Your task to perform on an android device: Empty the shopping cart on amazon. Add "dell xps" to the cart on amazon Image 0: 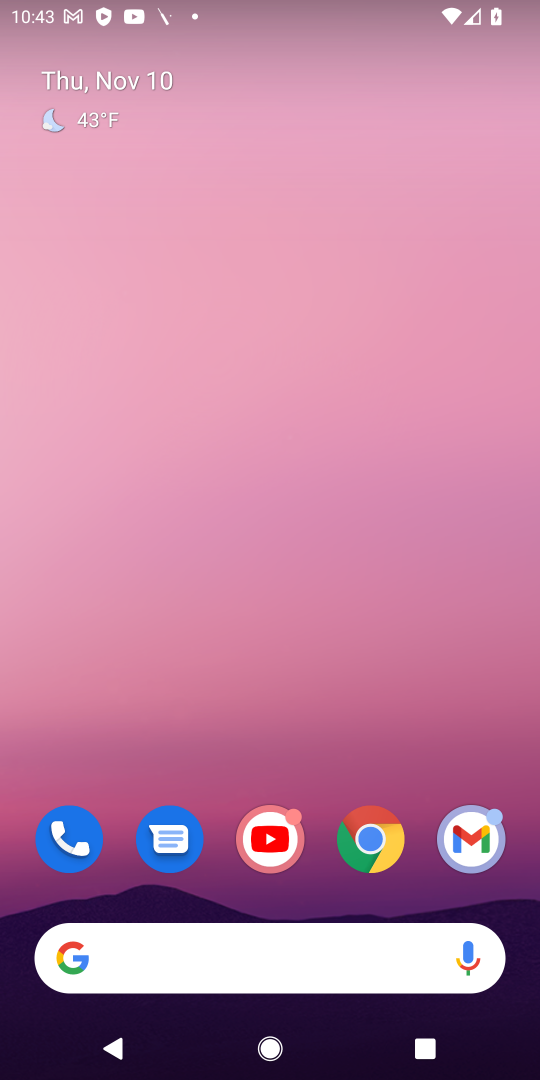
Step 0: click (362, 838)
Your task to perform on an android device: Empty the shopping cart on amazon. Add "dell xps" to the cart on amazon Image 1: 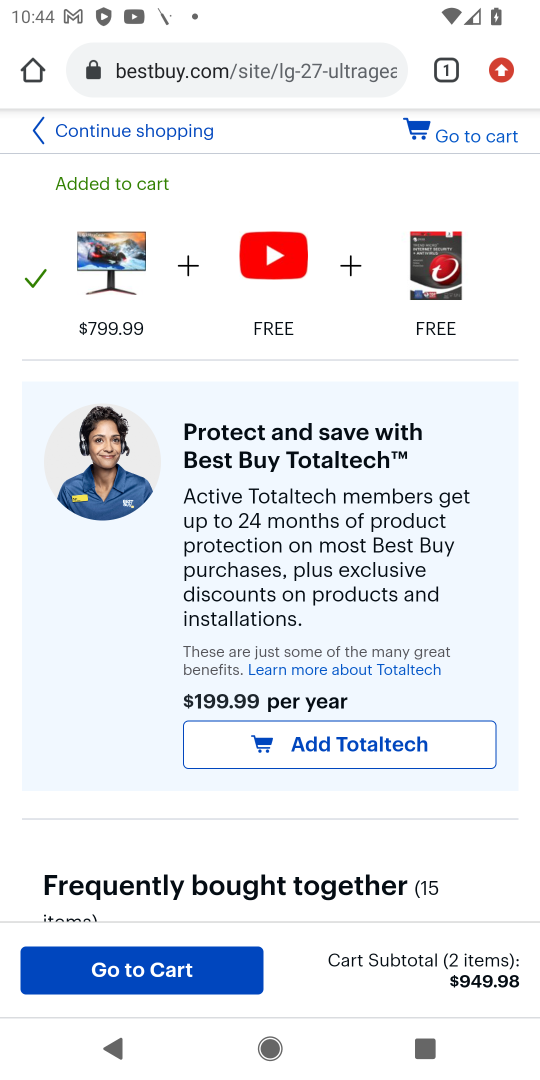
Step 1: click (298, 72)
Your task to perform on an android device: Empty the shopping cart on amazon. Add "dell xps" to the cart on amazon Image 2: 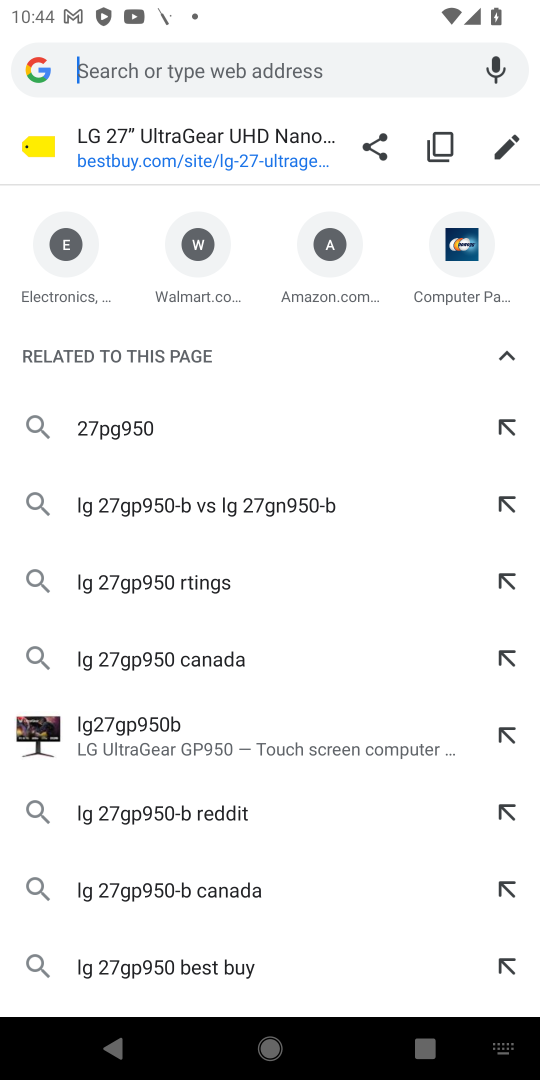
Step 2: type "amazon"
Your task to perform on an android device: Empty the shopping cart on amazon. Add "dell xps" to the cart on amazon Image 3: 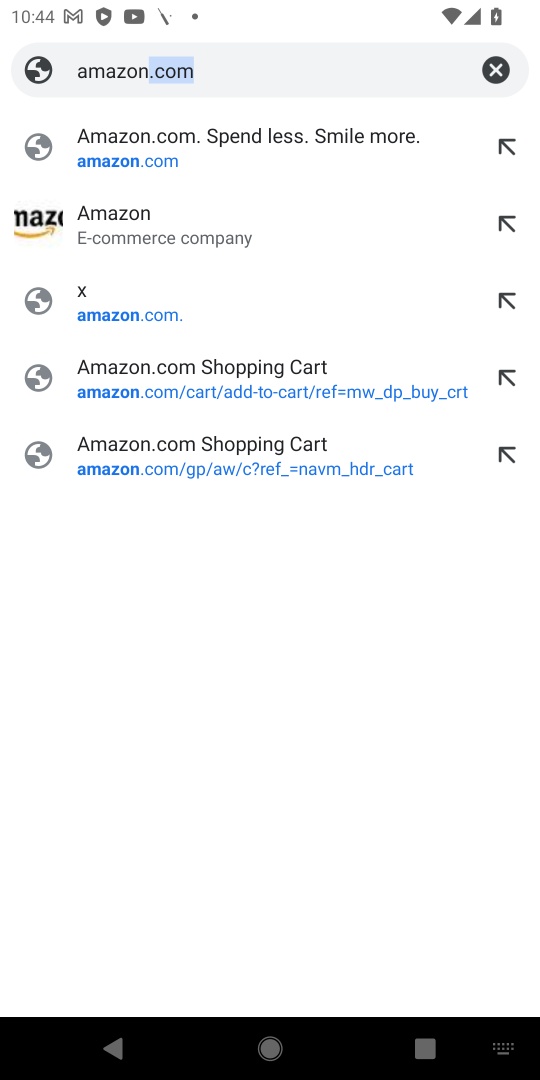
Step 3: click (287, 74)
Your task to perform on an android device: Empty the shopping cart on amazon. Add "dell xps" to the cart on amazon Image 4: 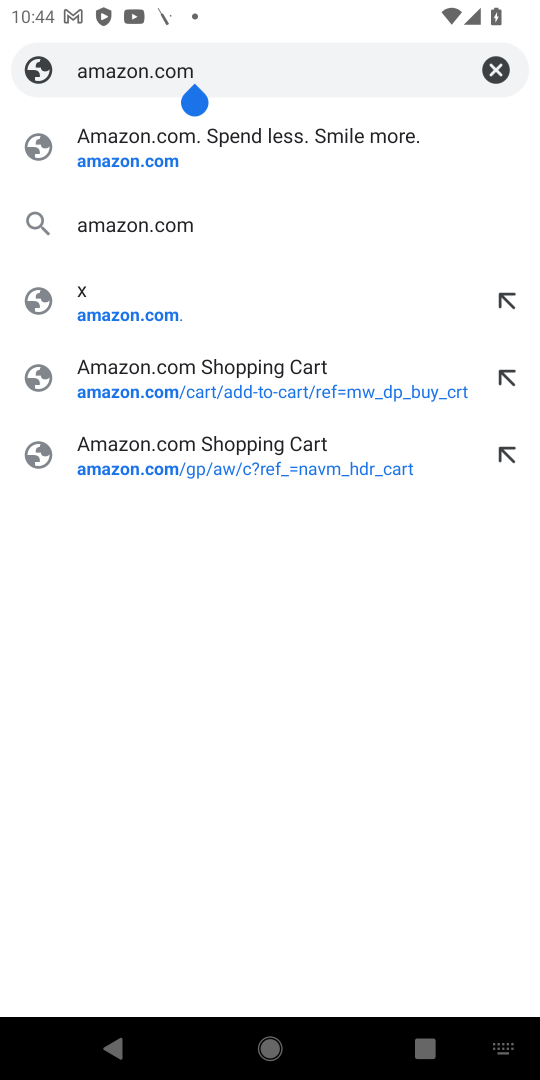
Step 4: click (145, 226)
Your task to perform on an android device: Empty the shopping cart on amazon. Add "dell xps" to the cart on amazon Image 5: 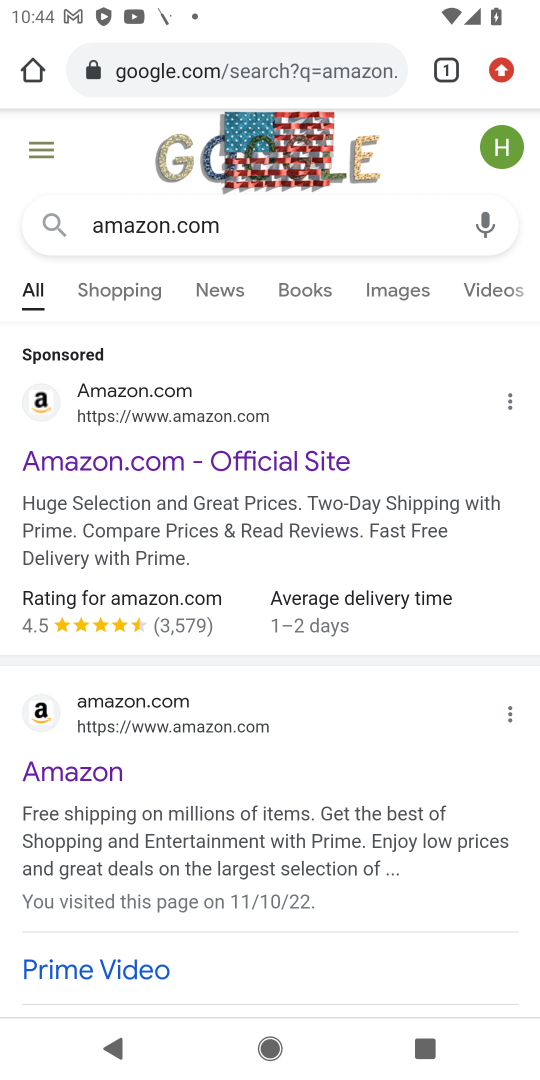
Step 5: drag from (279, 666) to (335, 389)
Your task to perform on an android device: Empty the shopping cart on amazon. Add "dell xps" to the cart on amazon Image 6: 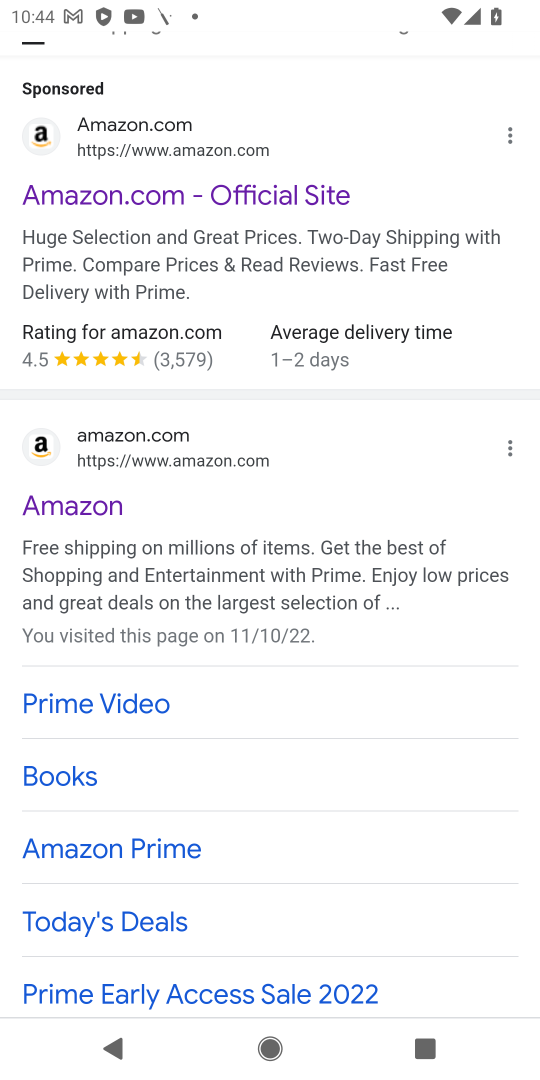
Step 6: drag from (224, 233) to (271, 560)
Your task to perform on an android device: Empty the shopping cart on amazon. Add "dell xps" to the cart on amazon Image 7: 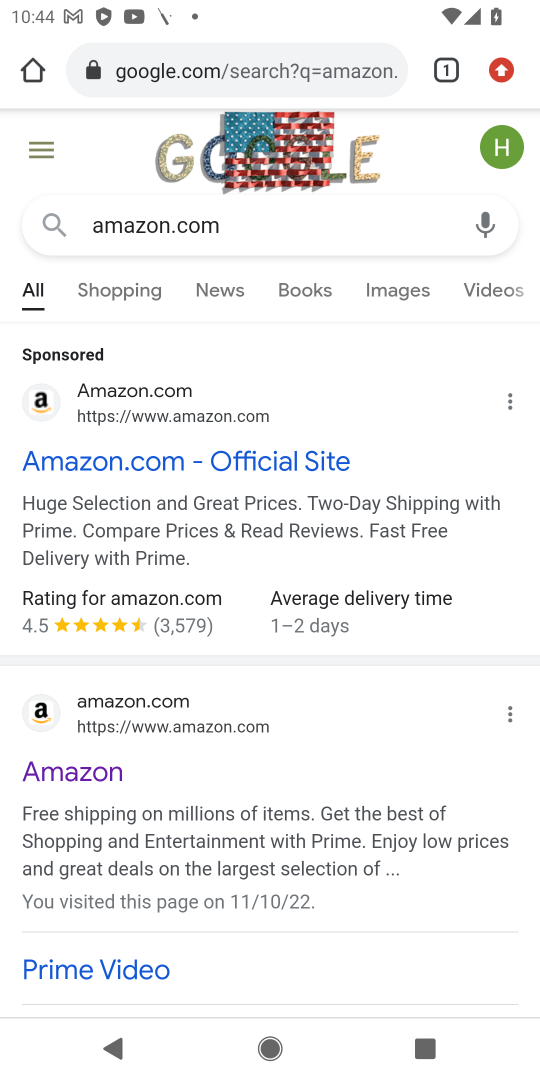
Step 7: click (239, 723)
Your task to perform on an android device: Empty the shopping cart on amazon. Add "dell xps" to the cart on amazon Image 8: 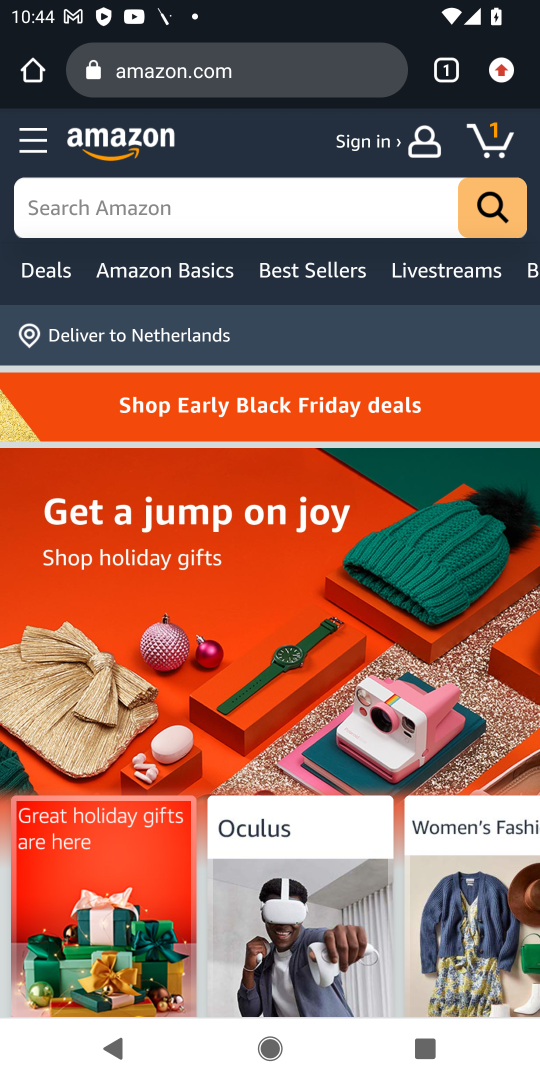
Step 8: click (493, 136)
Your task to perform on an android device: Empty the shopping cart on amazon. Add "dell xps" to the cart on amazon Image 9: 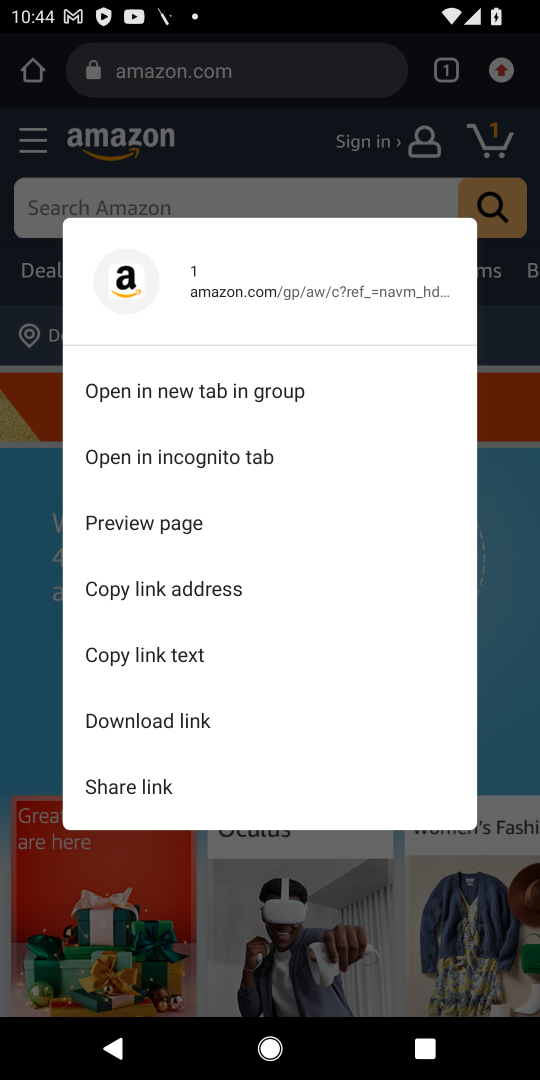
Step 9: click (509, 148)
Your task to perform on an android device: Empty the shopping cart on amazon. Add "dell xps" to the cart on amazon Image 10: 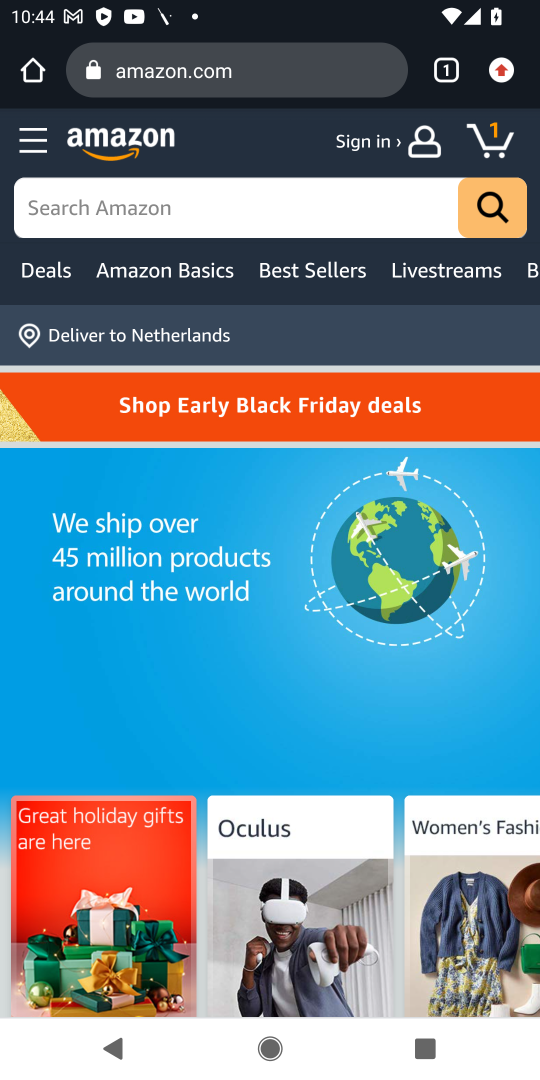
Step 10: click (493, 142)
Your task to perform on an android device: Empty the shopping cart on amazon. Add "dell xps" to the cart on amazon Image 11: 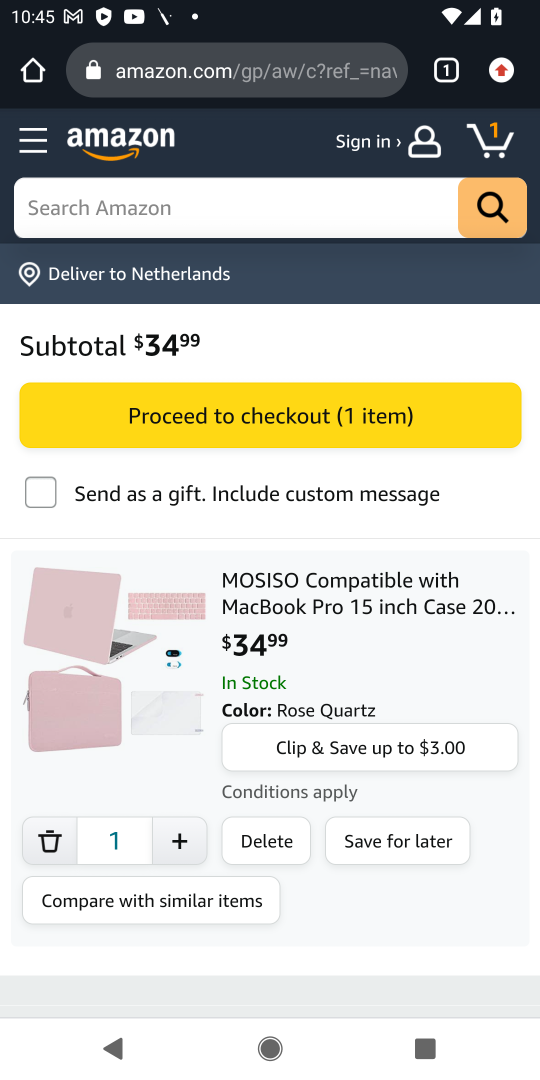
Step 11: click (277, 843)
Your task to perform on an android device: Empty the shopping cart on amazon. Add "dell xps" to the cart on amazon Image 12: 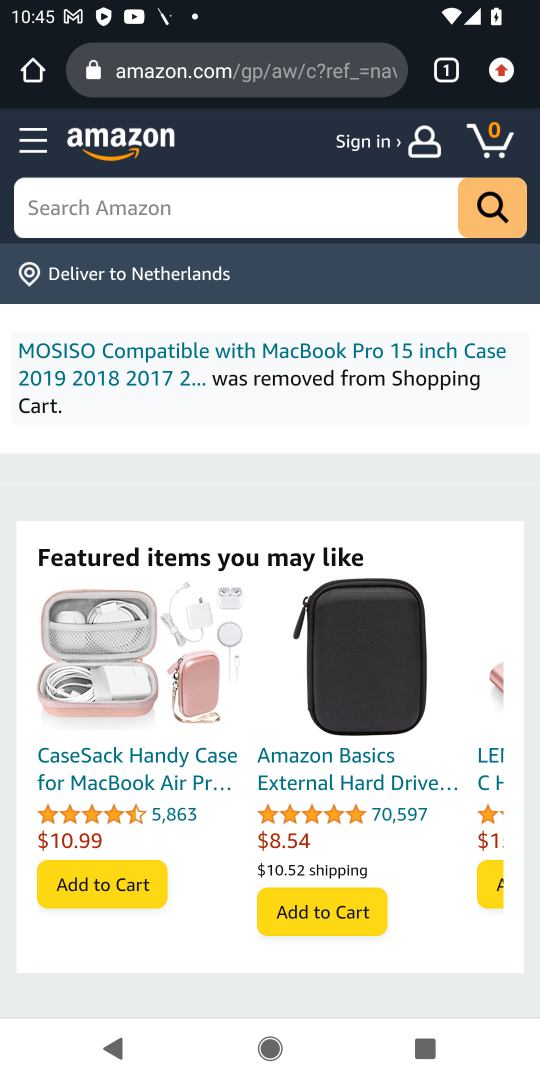
Step 12: click (355, 198)
Your task to perform on an android device: Empty the shopping cart on amazon. Add "dell xps" to the cart on amazon Image 13: 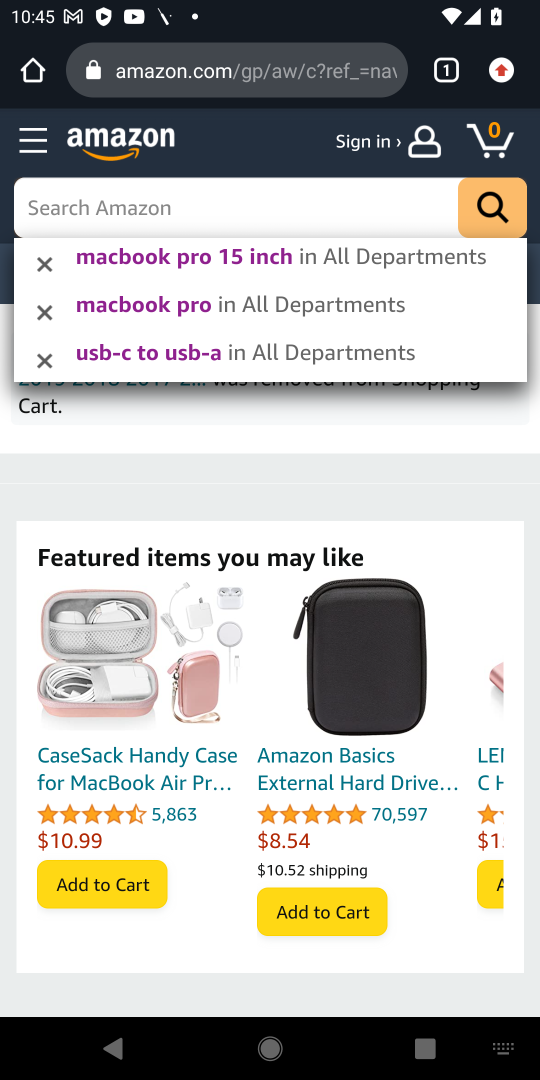
Step 13: type "dell xps"
Your task to perform on an android device: Empty the shopping cart on amazon. Add "dell xps" to the cart on amazon Image 14: 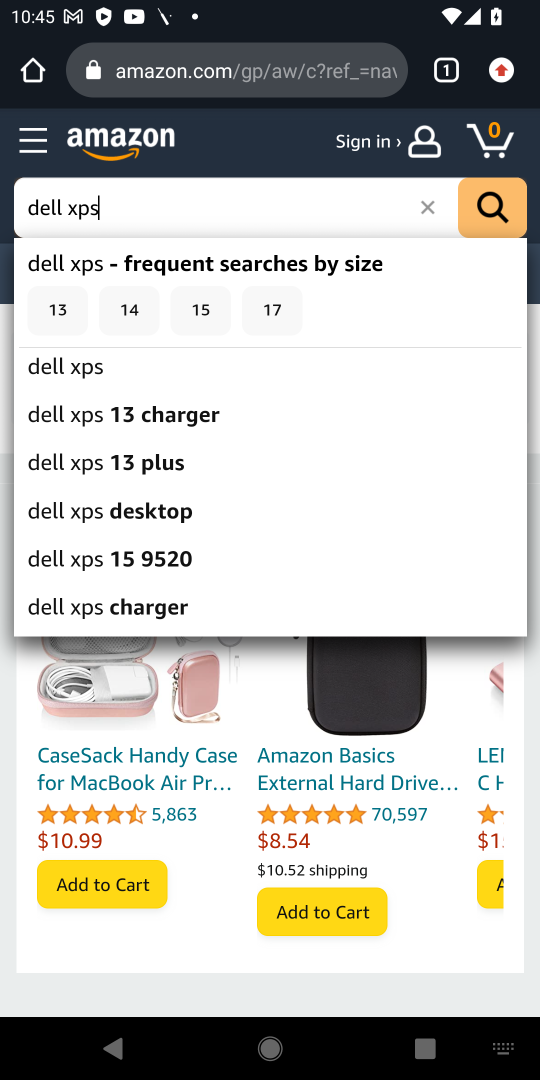
Step 14: click (84, 360)
Your task to perform on an android device: Empty the shopping cart on amazon. Add "dell xps" to the cart on amazon Image 15: 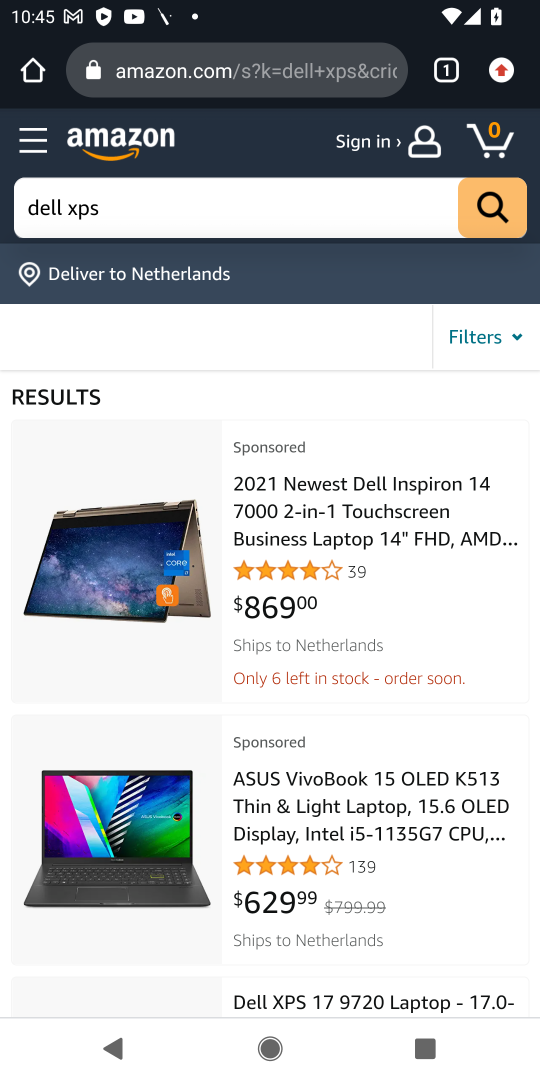
Step 15: drag from (113, 862) to (175, 466)
Your task to perform on an android device: Empty the shopping cart on amazon. Add "dell xps" to the cart on amazon Image 16: 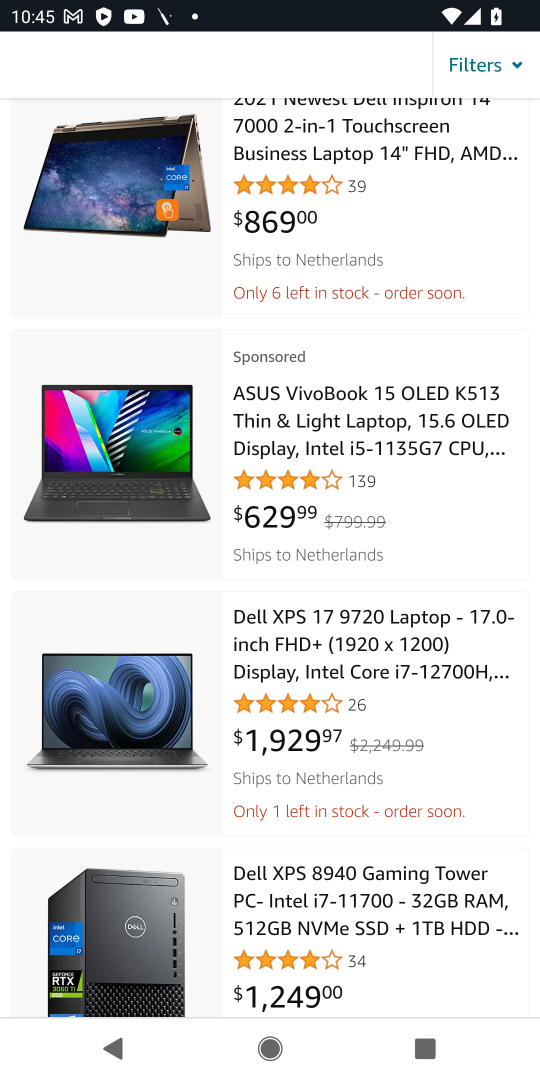
Step 16: click (110, 745)
Your task to perform on an android device: Empty the shopping cart on amazon. Add "dell xps" to the cart on amazon Image 17: 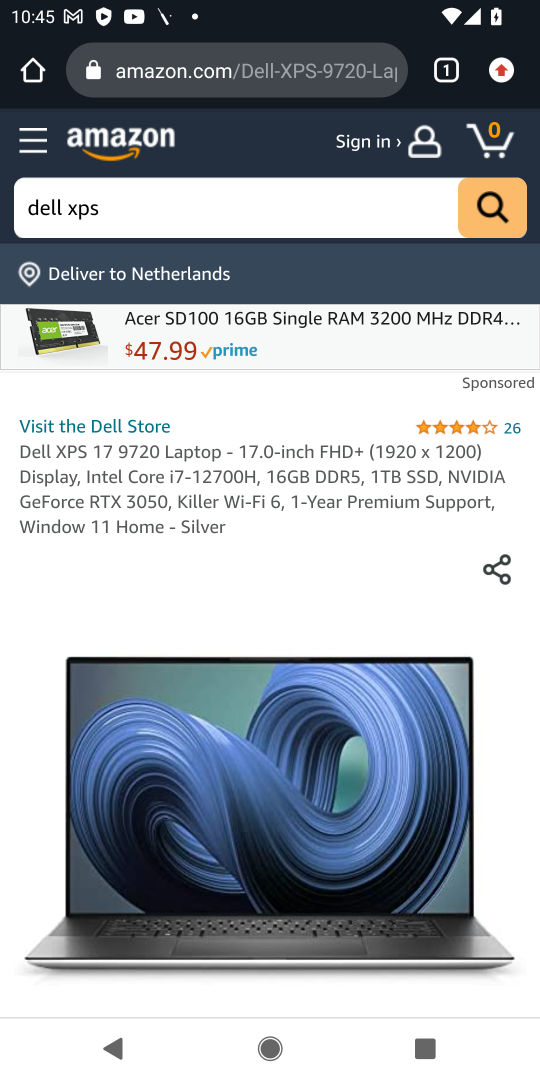
Step 17: drag from (244, 855) to (298, 458)
Your task to perform on an android device: Empty the shopping cart on amazon. Add "dell xps" to the cart on amazon Image 18: 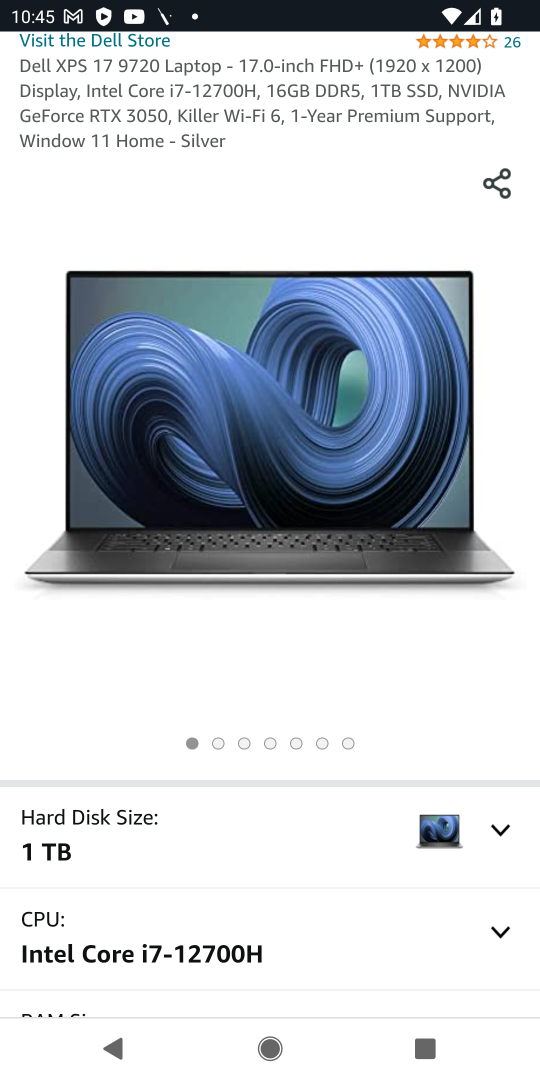
Step 18: drag from (350, 858) to (357, 601)
Your task to perform on an android device: Empty the shopping cart on amazon. Add "dell xps" to the cart on amazon Image 19: 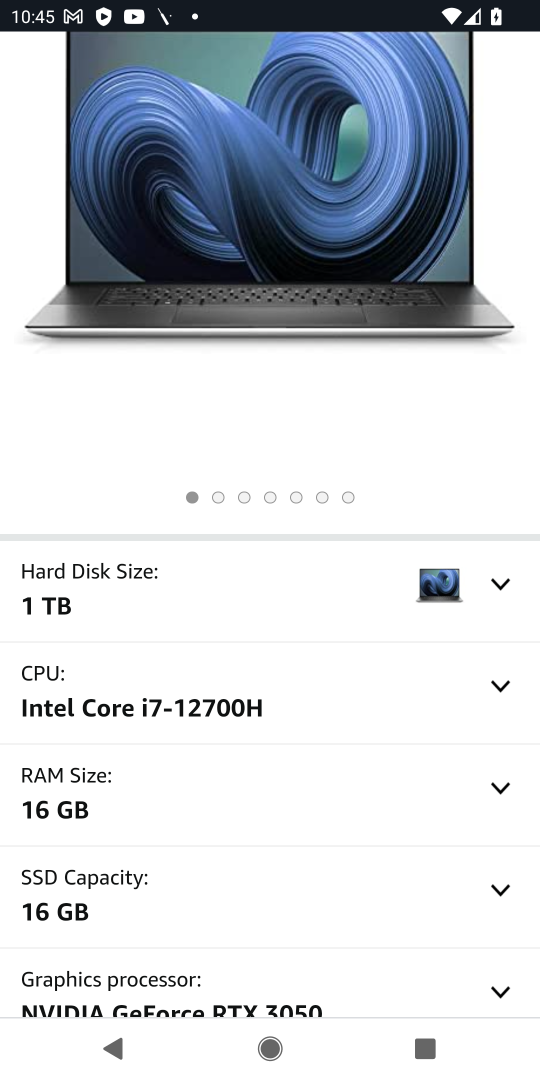
Step 19: drag from (351, 846) to (315, 441)
Your task to perform on an android device: Empty the shopping cart on amazon. Add "dell xps" to the cart on amazon Image 20: 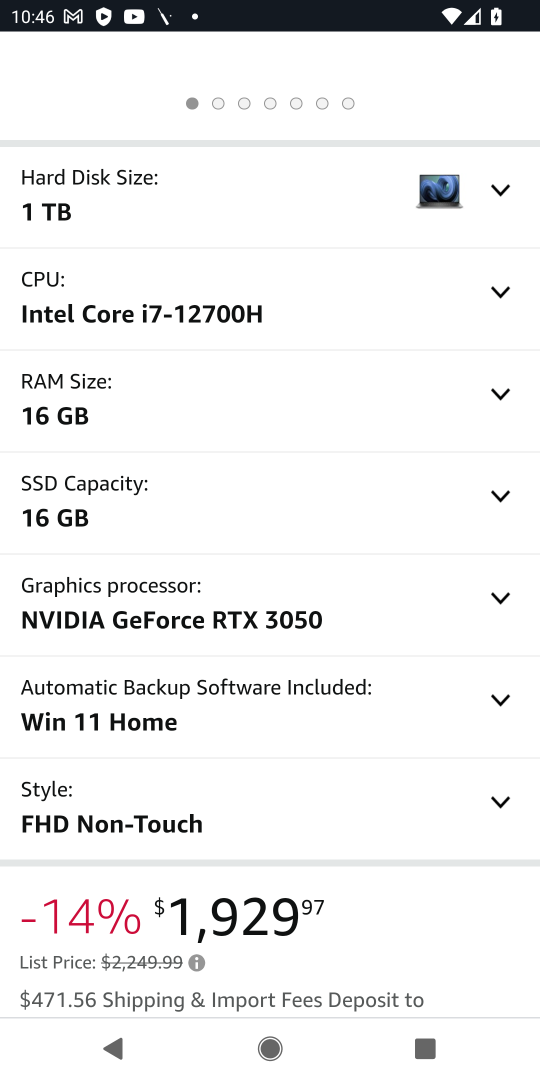
Step 20: drag from (357, 815) to (318, 280)
Your task to perform on an android device: Empty the shopping cart on amazon. Add "dell xps" to the cart on amazon Image 21: 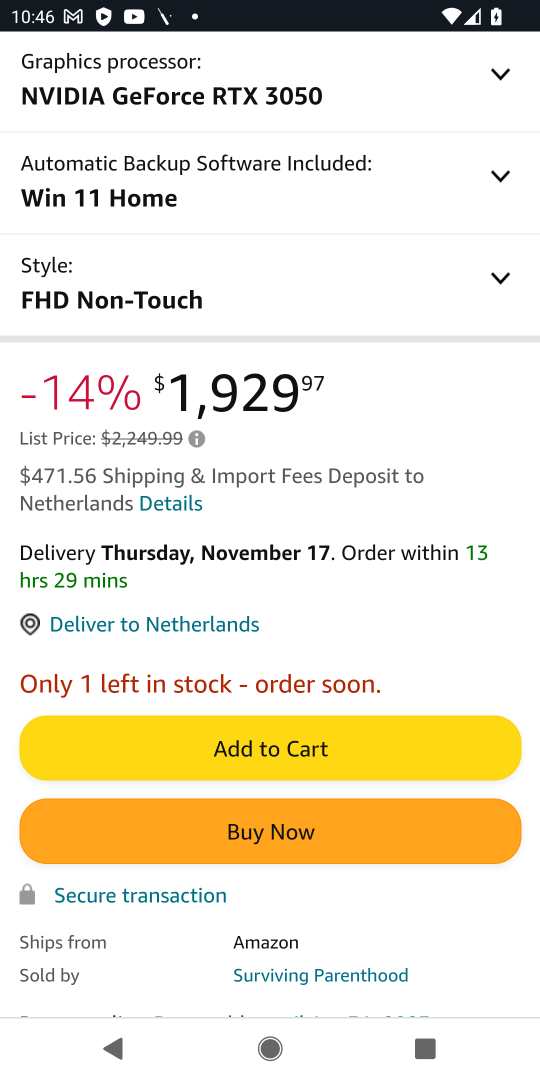
Step 21: click (297, 738)
Your task to perform on an android device: Empty the shopping cart on amazon. Add "dell xps" to the cart on amazon Image 22: 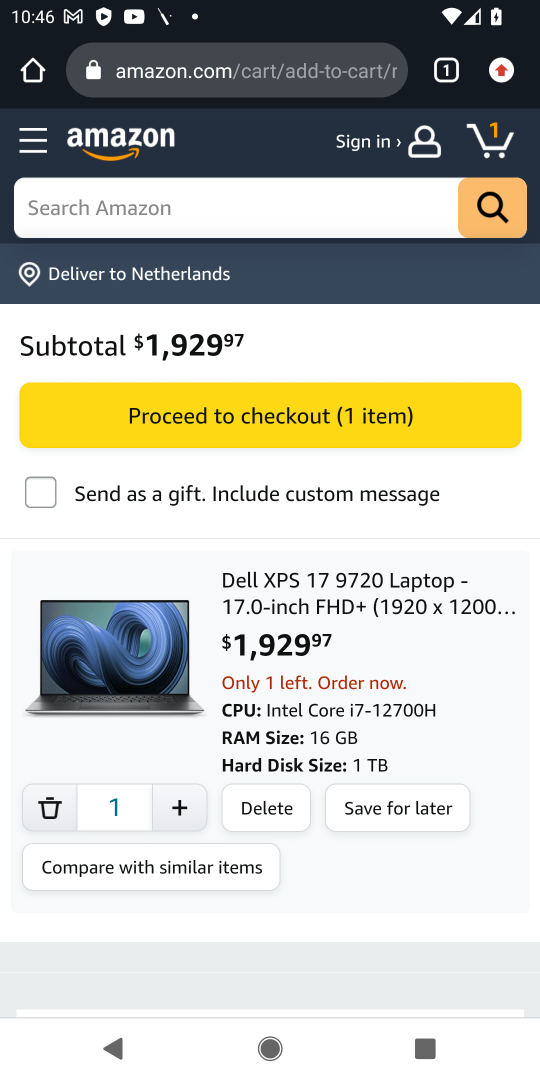
Step 22: task complete